Your task to perform on an android device: see tabs open on other devices in the chrome app Image 0: 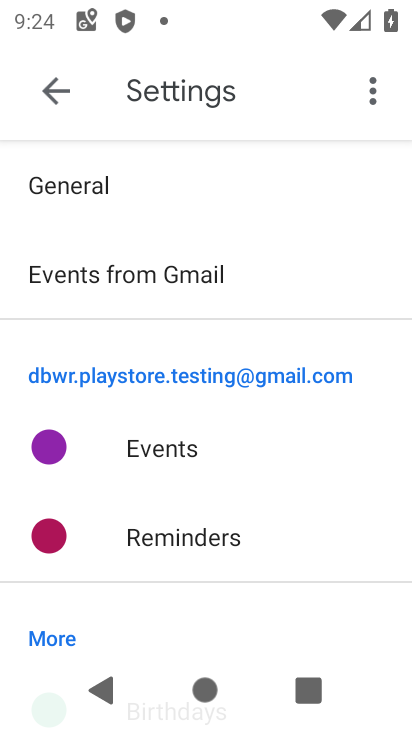
Step 0: press home button
Your task to perform on an android device: see tabs open on other devices in the chrome app Image 1: 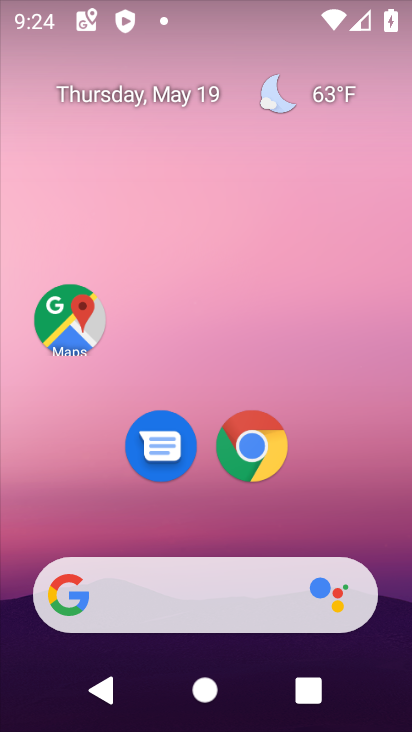
Step 1: click (262, 447)
Your task to perform on an android device: see tabs open on other devices in the chrome app Image 2: 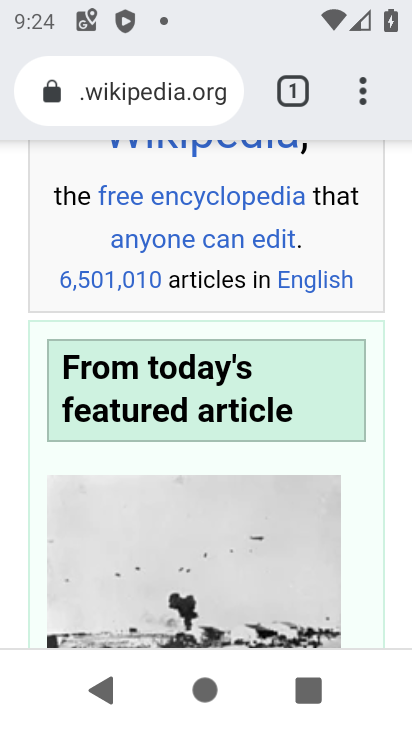
Step 2: click (361, 93)
Your task to perform on an android device: see tabs open on other devices in the chrome app Image 3: 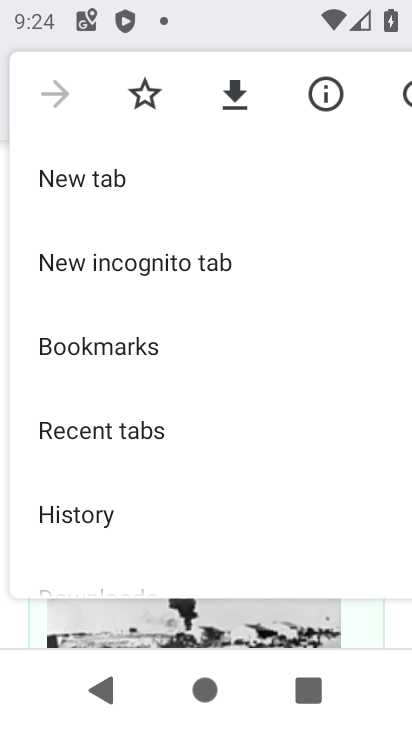
Step 3: click (136, 440)
Your task to perform on an android device: see tabs open on other devices in the chrome app Image 4: 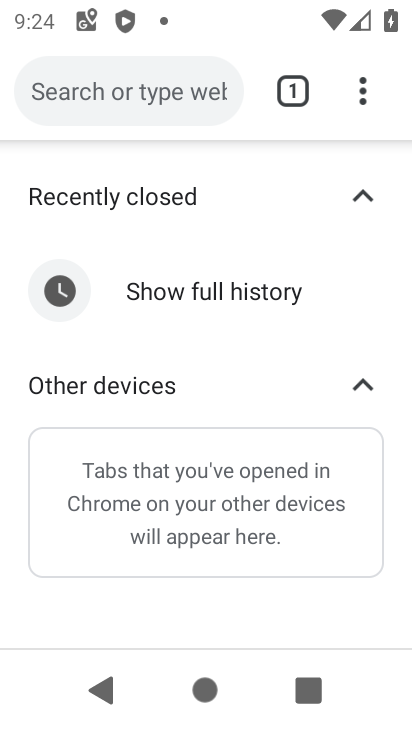
Step 4: task complete